Your task to perform on an android device: turn notification dots off Image 0: 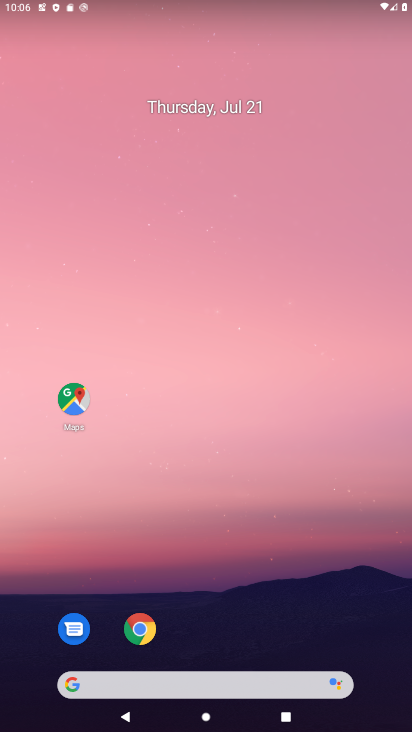
Step 0: press home button
Your task to perform on an android device: turn notification dots off Image 1: 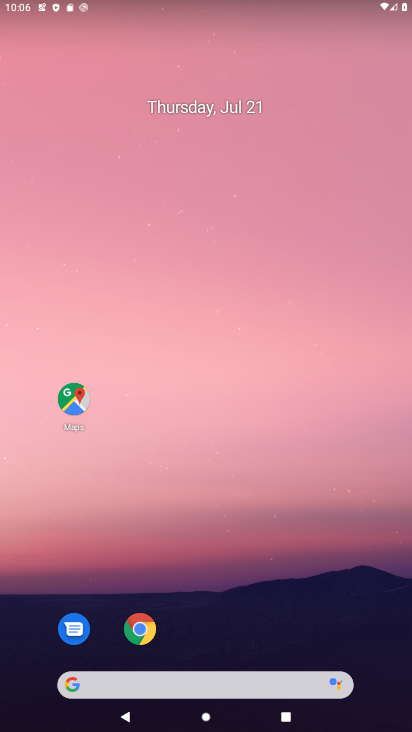
Step 1: press home button
Your task to perform on an android device: turn notification dots off Image 2: 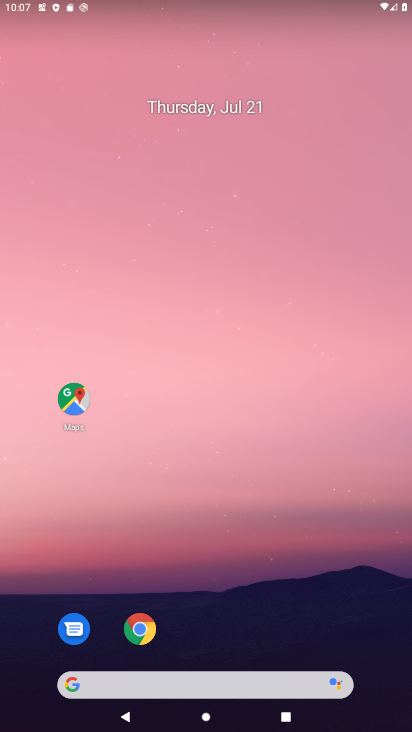
Step 2: drag from (310, 680) to (335, 229)
Your task to perform on an android device: turn notification dots off Image 3: 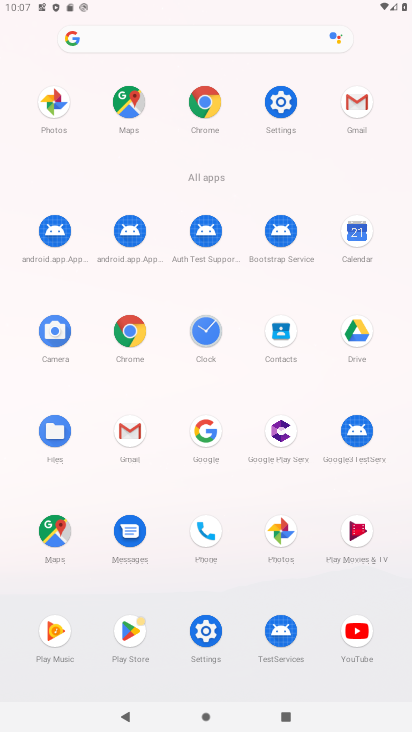
Step 3: click (209, 639)
Your task to perform on an android device: turn notification dots off Image 4: 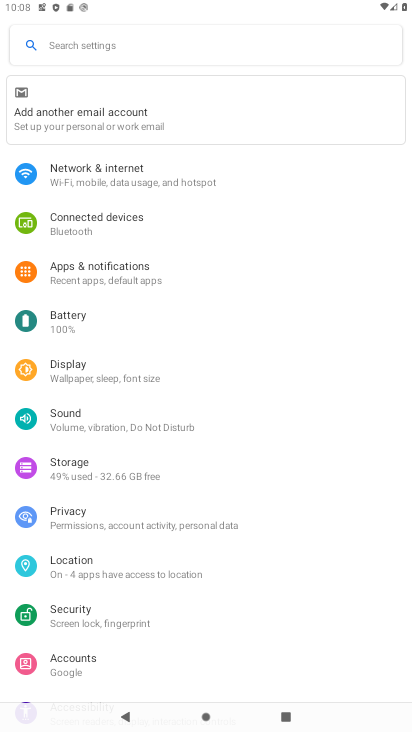
Step 4: click (73, 272)
Your task to perform on an android device: turn notification dots off Image 5: 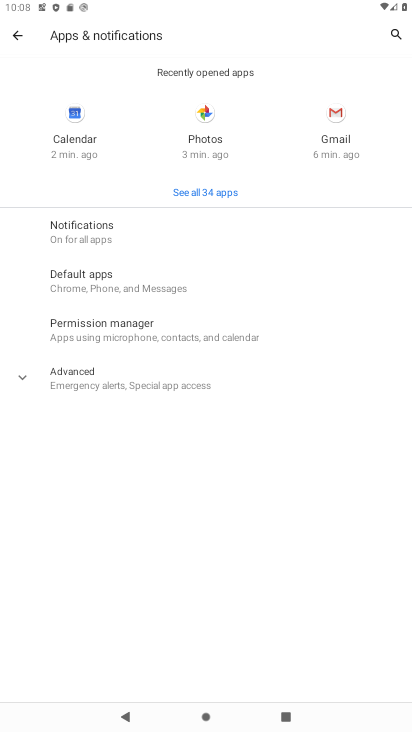
Step 5: click (70, 232)
Your task to perform on an android device: turn notification dots off Image 6: 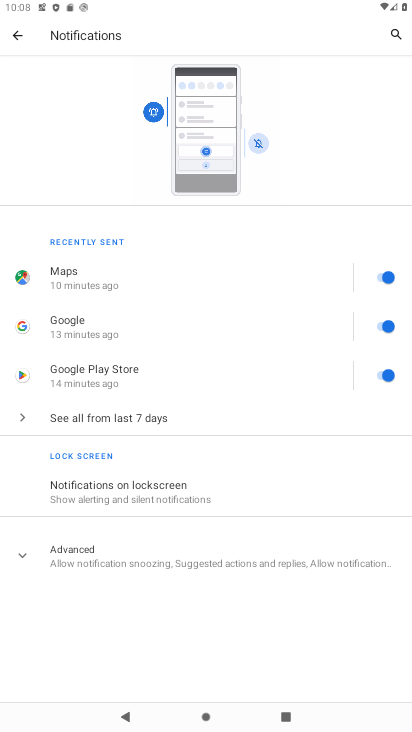
Step 6: click (131, 565)
Your task to perform on an android device: turn notification dots off Image 7: 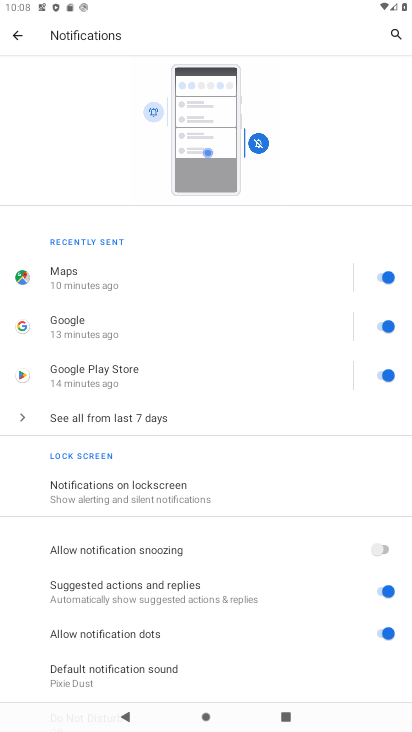
Step 7: drag from (214, 624) to (162, 426)
Your task to perform on an android device: turn notification dots off Image 8: 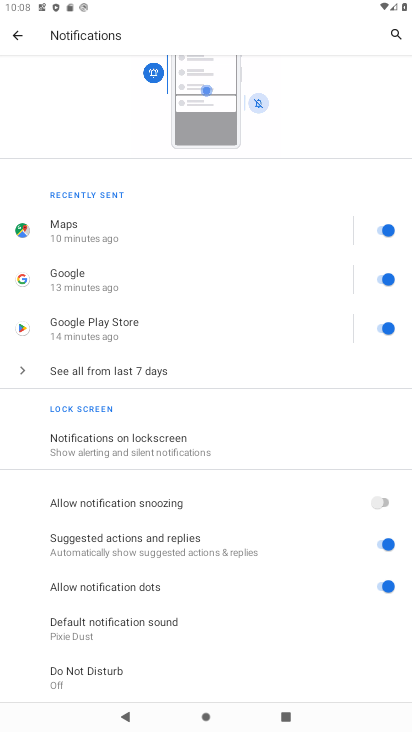
Step 8: click (384, 581)
Your task to perform on an android device: turn notification dots off Image 9: 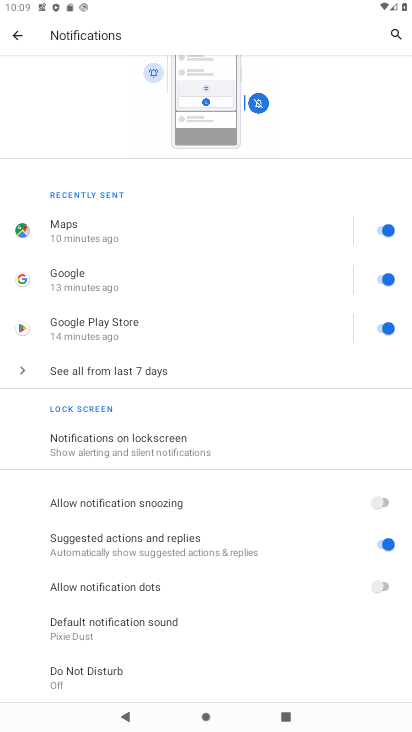
Step 9: task complete